Your task to perform on an android device: remove spam from my inbox in the gmail app Image 0: 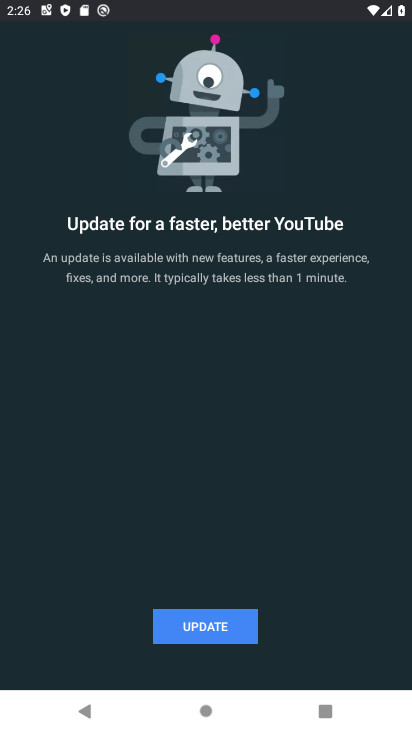
Step 0: press home button
Your task to perform on an android device: remove spam from my inbox in the gmail app Image 1: 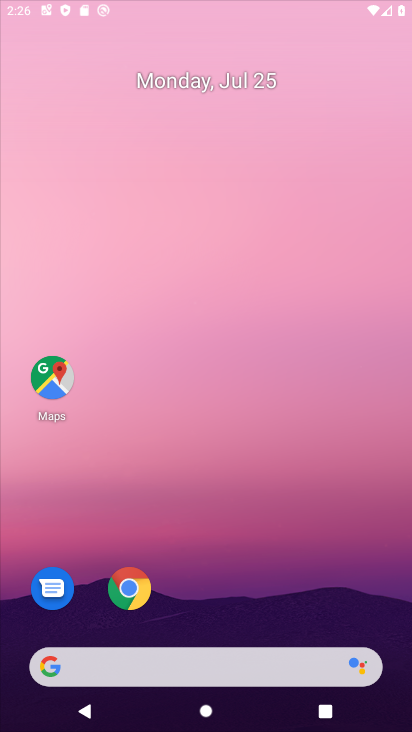
Step 1: press home button
Your task to perform on an android device: remove spam from my inbox in the gmail app Image 2: 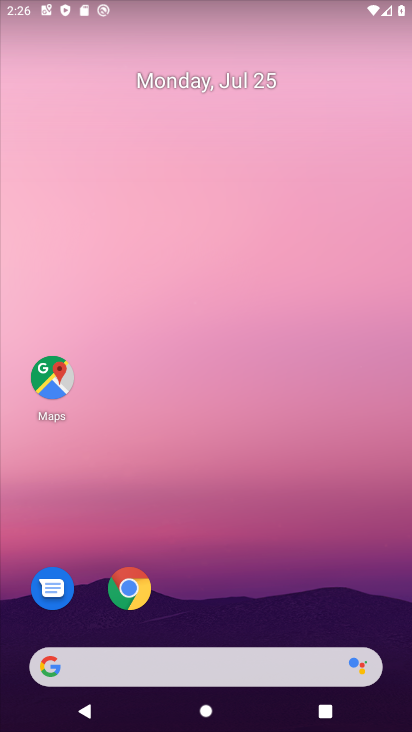
Step 2: drag from (162, 468) to (303, 291)
Your task to perform on an android device: remove spam from my inbox in the gmail app Image 3: 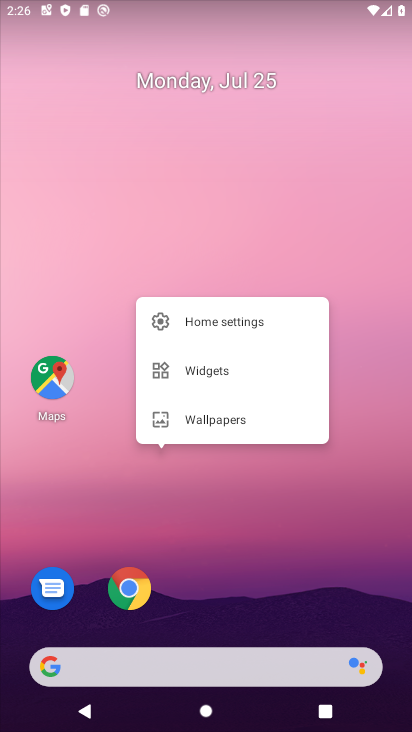
Step 3: drag from (185, 612) to (283, 123)
Your task to perform on an android device: remove spam from my inbox in the gmail app Image 4: 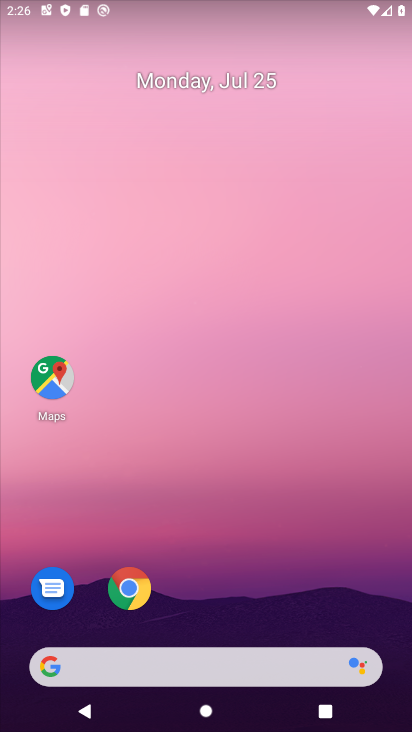
Step 4: drag from (179, 642) to (249, 146)
Your task to perform on an android device: remove spam from my inbox in the gmail app Image 5: 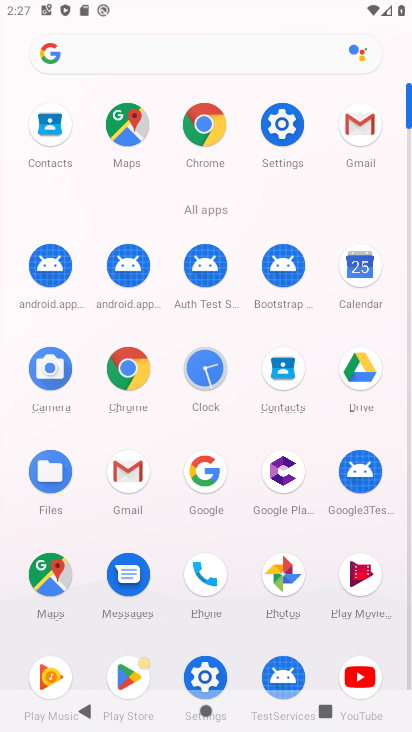
Step 5: click (356, 116)
Your task to perform on an android device: remove spam from my inbox in the gmail app Image 6: 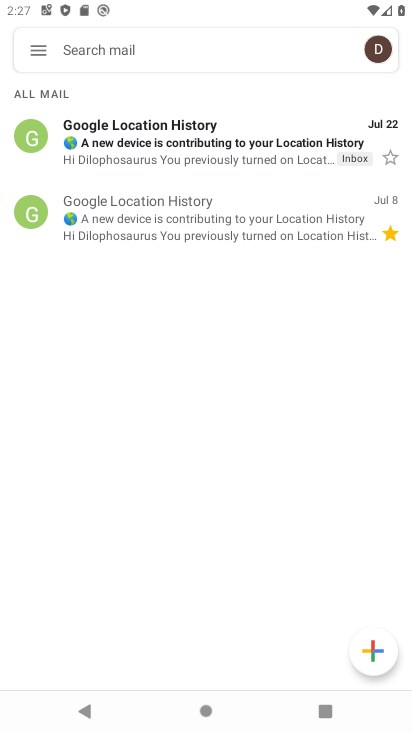
Step 6: click (33, 47)
Your task to perform on an android device: remove spam from my inbox in the gmail app Image 7: 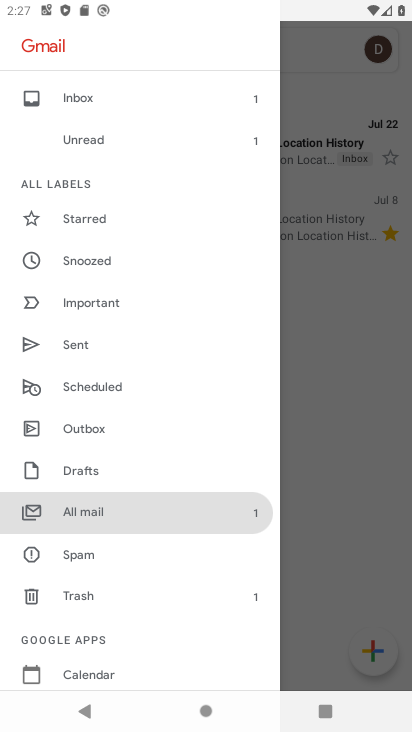
Step 7: click (68, 551)
Your task to perform on an android device: remove spam from my inbox in the gmail app Image 8: 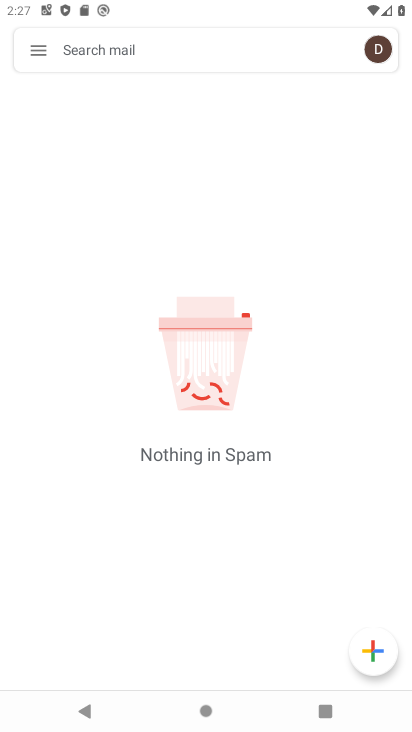
Step 8: task complete